Your task to perform on an android device: turn smart compose on in the gmail app Image 0: 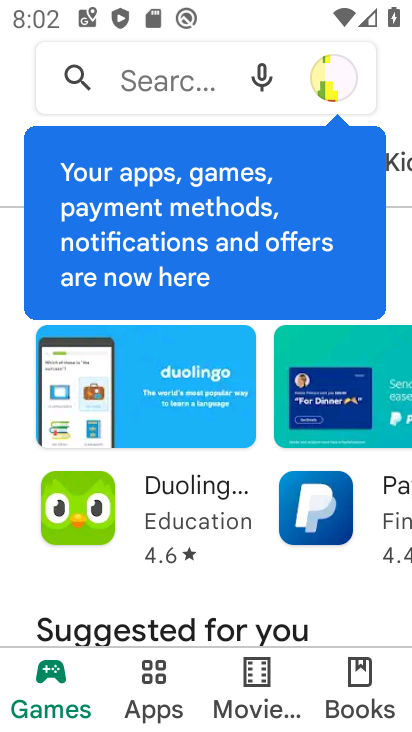
Step 0: press home button
Your task to perform on an android device: turn smart compose on in the gmail app Image 1: 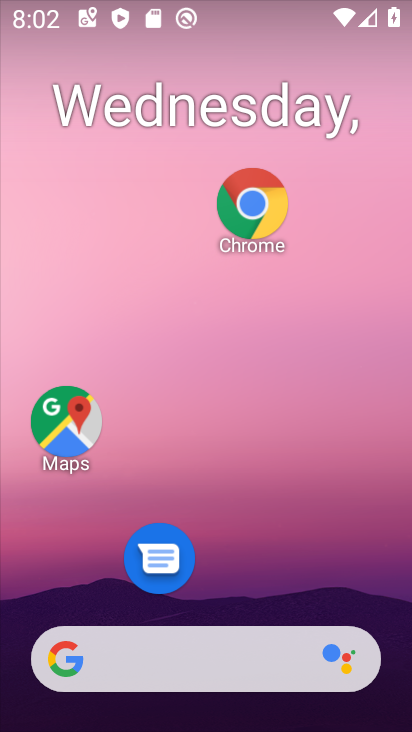
Step 1: drag from (224, 608) to (267, 57)
Your task to perform on an android device: turn smart compose on in the gmail app Image 2: 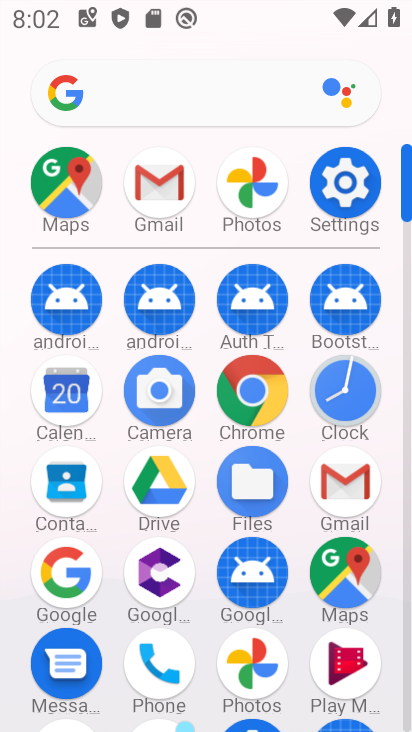
Step 2: click (343, 473)
Your task to perform on an android device: turn smart compose on in the gmail app Image 3: 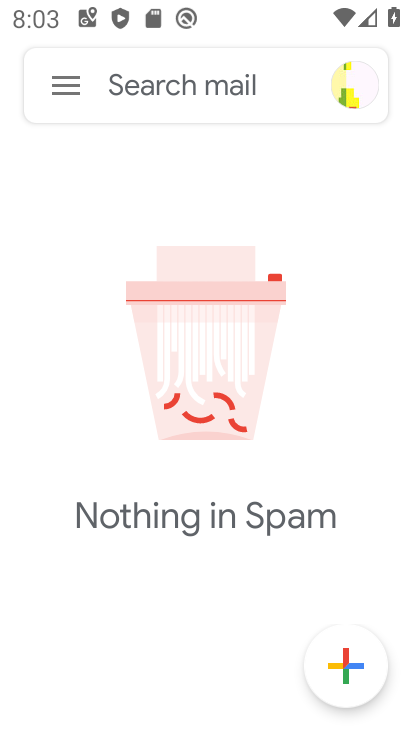
Step 3: click (65, 81)
Your task to perform on an android device: turn smart compose on in the gmail app Image 4: 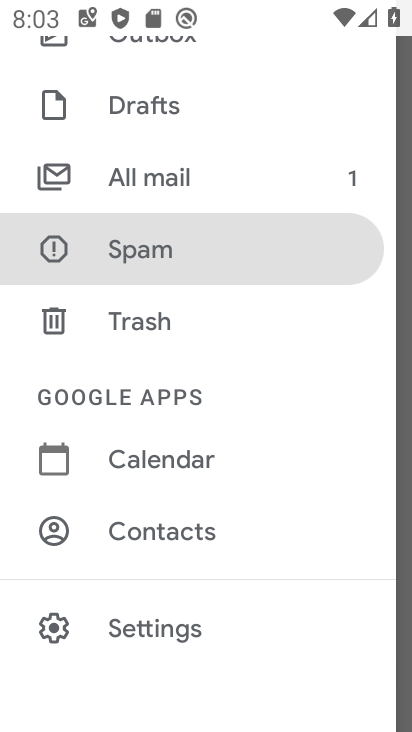
Step 4: click (192, 618)
Your task to perform on an android device: turn smart compose on in the gmail app Image 5: 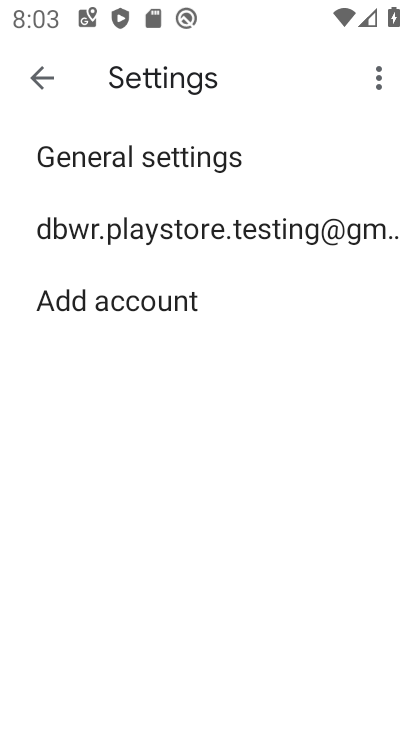
Step 5: click (237, 214)
Your task to perform on an android device: turn smart compose on in the gmail app Image 6: 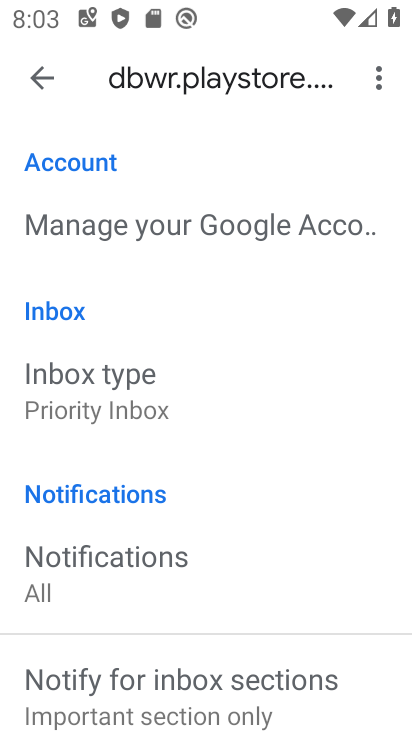
Step 6: task complete